Your task to perform on an android device: open chrome privacy settings Image 0: 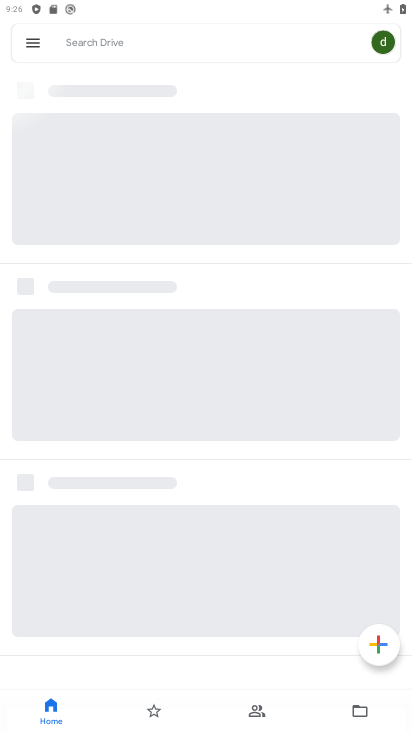
Step 0: press home button
Your task to perform on an android device: open chrome privacy settings Image 1: 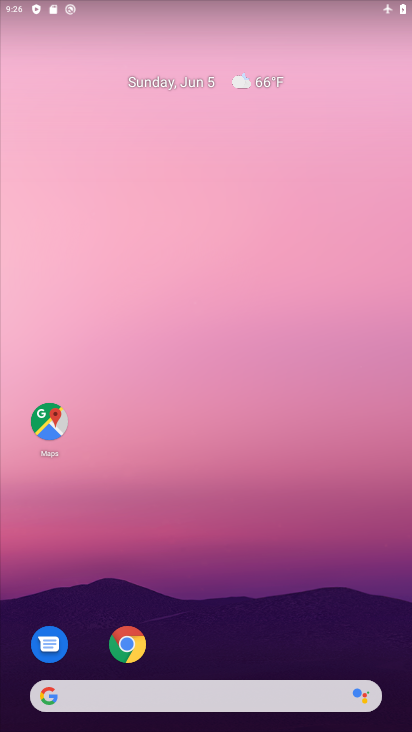
Step 1: click (128, 646)
Your task to perform on an android device: open chrome privacy settings Image 2: 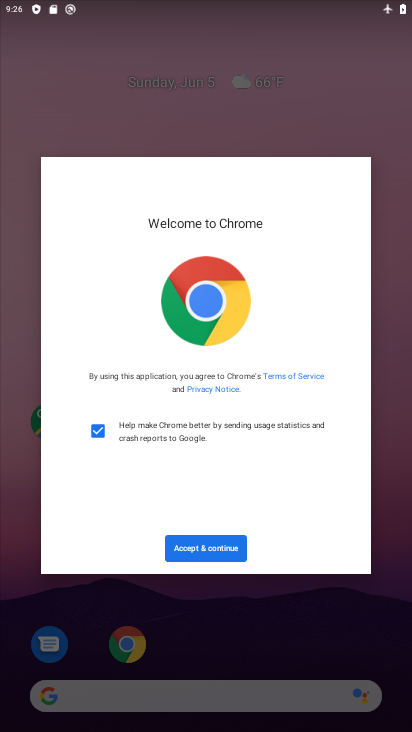
Step 2: click (202, 555)
Your task to perform on an android device: open chrome privacy settings Image 3: 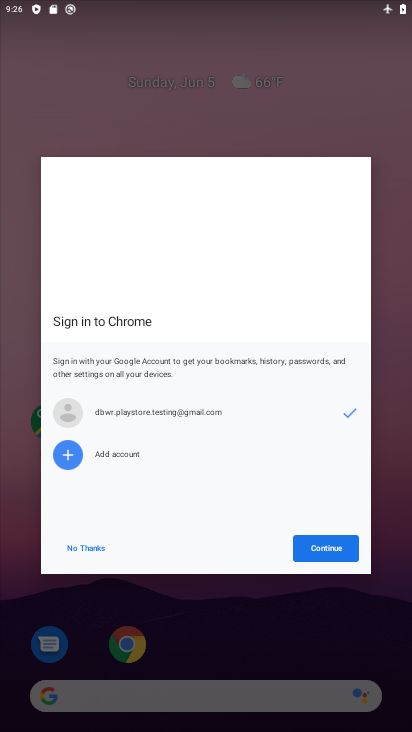
Step 3: click (344, 545)
Your task to perform on an android device: open chrome privacy settings Image 4: 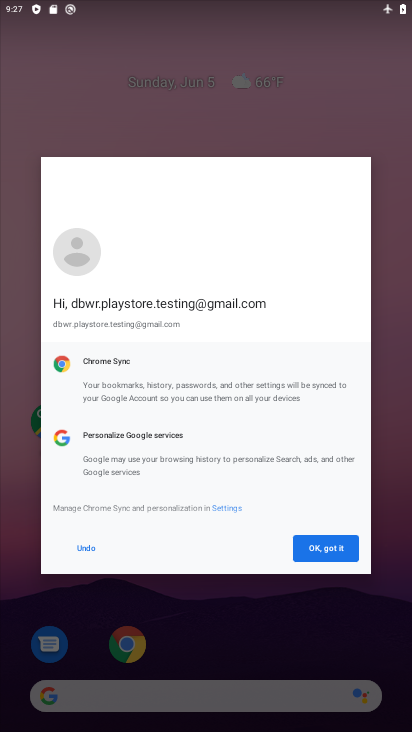
Step 4: click (345, 545)
Your task to perform on an android device: open chrome privacy settings Image 5: 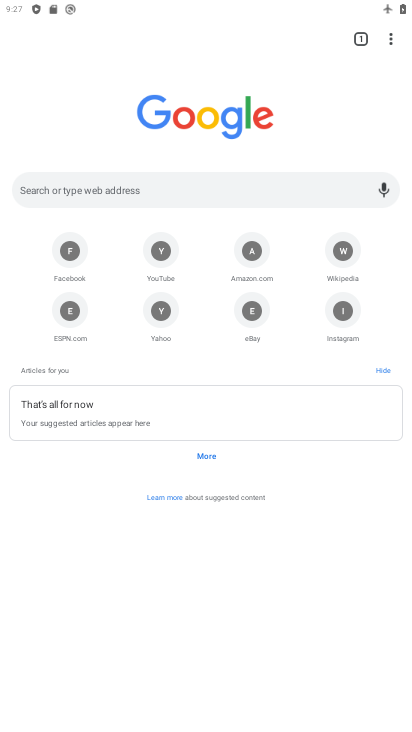
Step 5: click (391, 35)
Your task to perform on an android device: open chrome privacy settings Image 6: 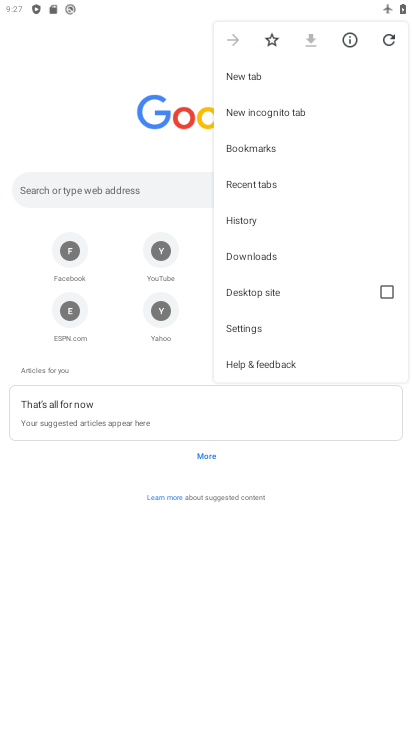
Step 6: click (242, 328)
Your task to perform on an android device: open chrome privacy settings Image 7: 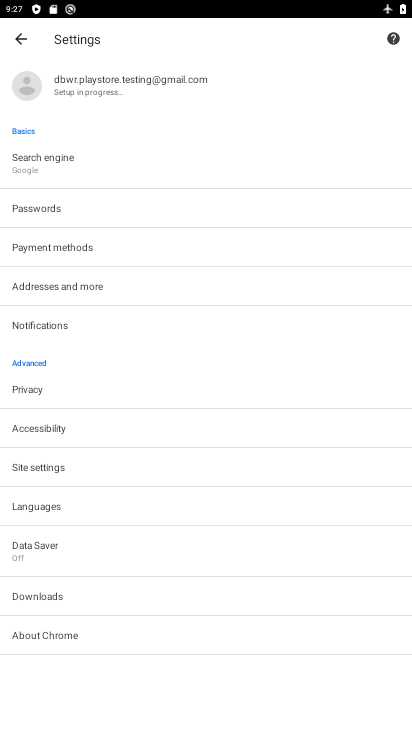
Step 7: click (38, 390)
Your task to perform on an android device: open chrome privacy settings Image 8: 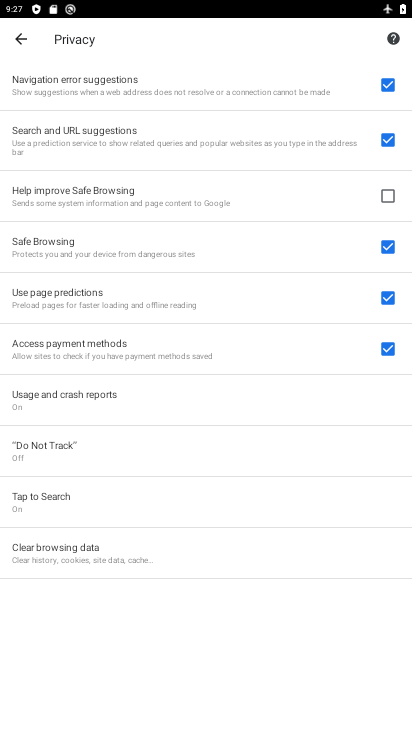
Step 8: task complete